Your task to perform on an android device: toggle pop-ups in chrome Image 0: 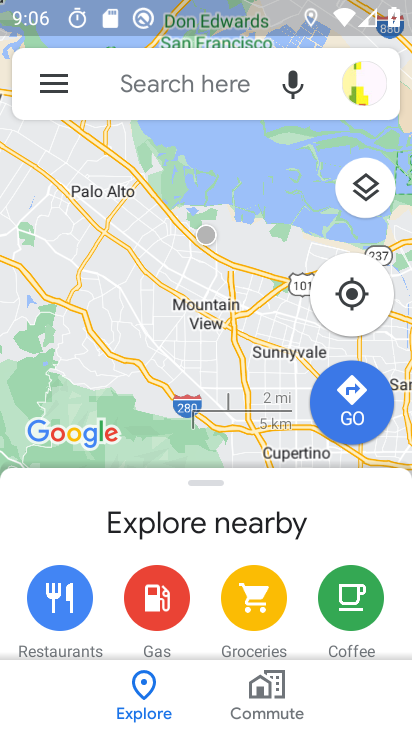
Step 0: press home button
Your task to perform on an android device: toggle pop-ups in chrome Image 1: 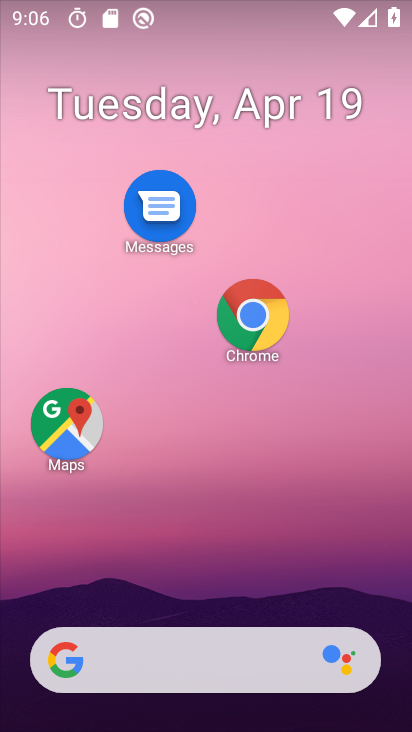
Step 1: click (241, 331)
Your task to perform on an android device: toggle pop-ups in chrome Image 2: 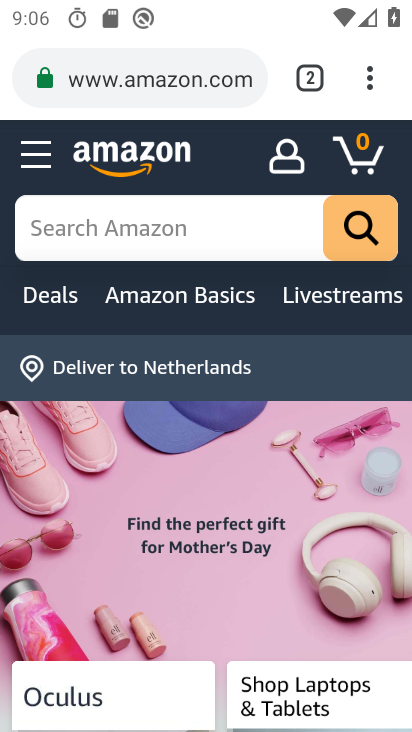
Step 2: click (357, 87)
Your task to perform on an android device: toggle pop-ups in chrome Image 3: 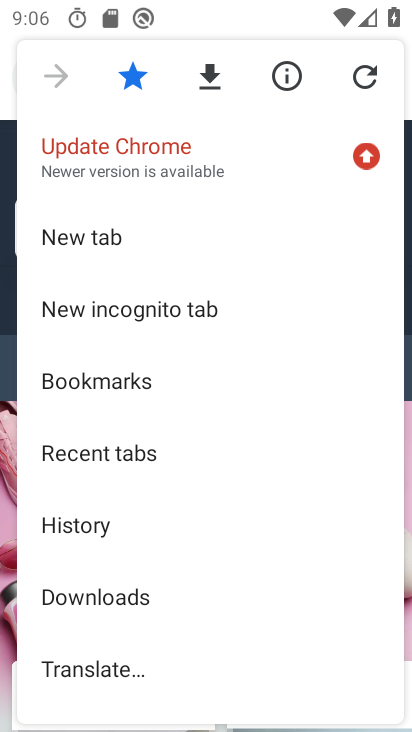
Step 3: drag from (104, 595) to (86, 324)
Your task to perform on an android device: toggle pop-ups in chrome Image 4: 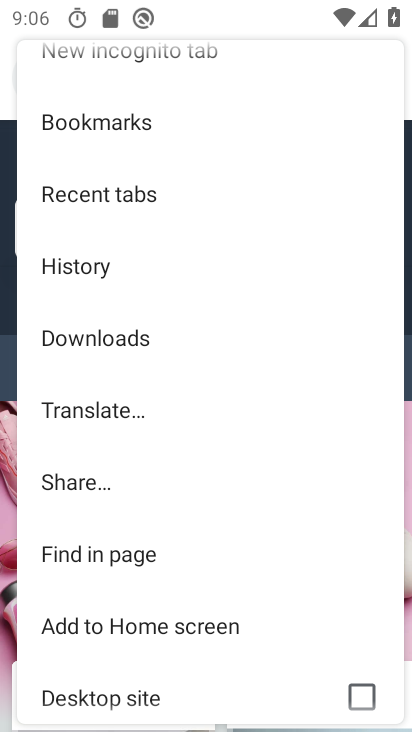
Step 4: drag from (91, 632) to (125, 324)
Your task to perform on an android device: toggle pop-ups in chrome Image 5: 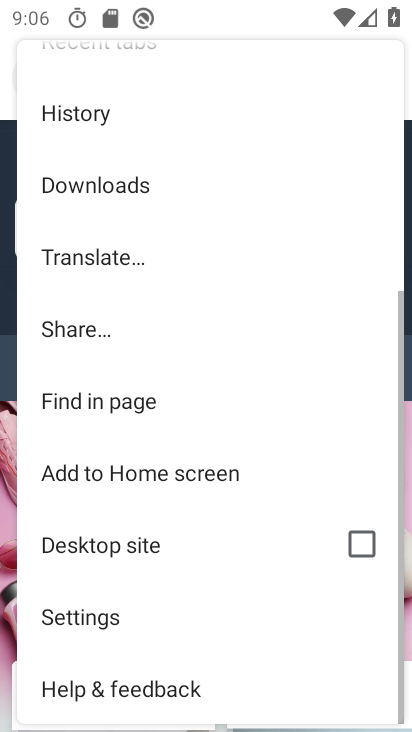
Step 5: click (64, 621)
Your task to perform on an android device: toggle pop-ups in chrome Image 6: 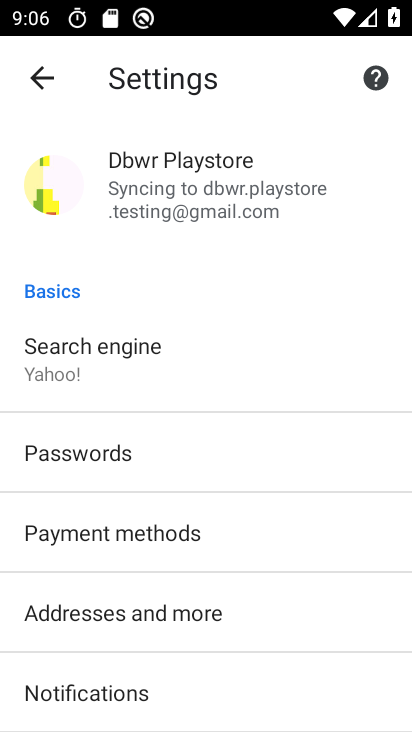
Step 6: drag from (154, 562) to (156, 160)
Your task to perform on an android device: toggle pop-ups in chrome Image 7: 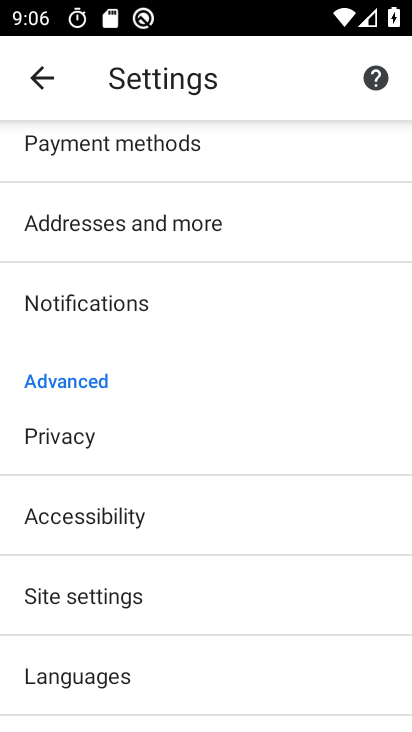
Step 7: click (171, 614)
Your task to perform on an android device: toggle pop-ups in chrome Image 8: 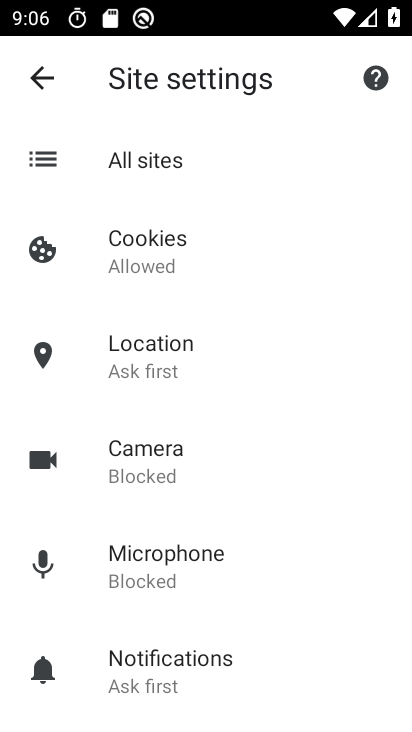
Step 8: drag from (187, 671) to (164, 202)
Your task to perform on an android device: toggle pop-ups in chrome Image 9: 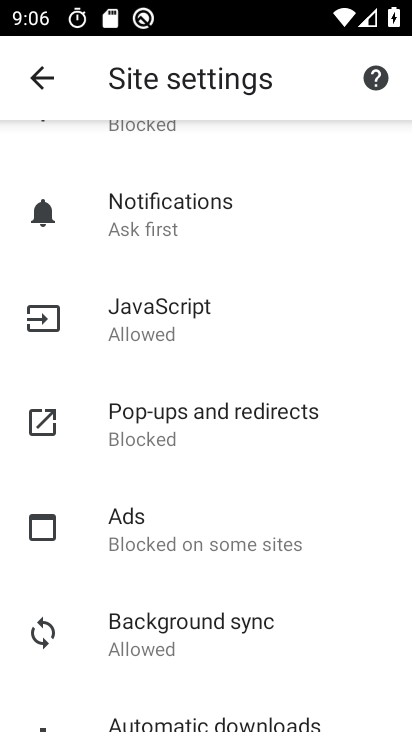
Step 9: click (164, 427)
Your task to perform on an android device: toggle pop-ups in chrome Image 10: 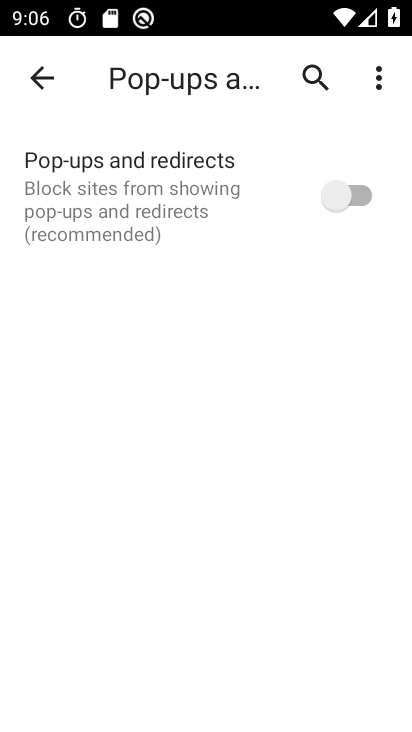
Step 10: click (344, 199)
Your task to perform on an android device: toggle pop-ups in chrome Image 11: 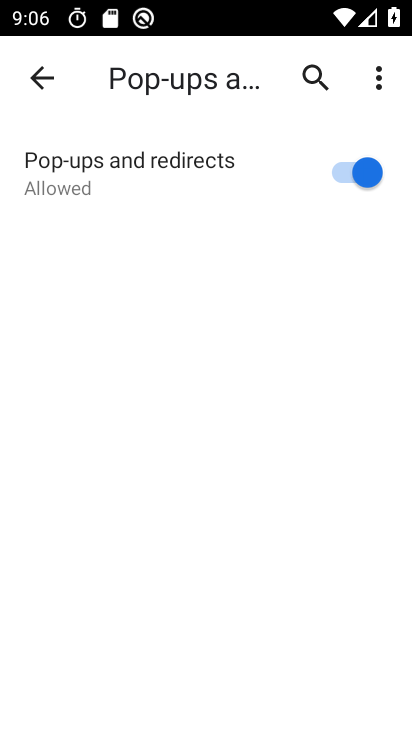
Step 11: task complete